Your task to perform on an android device: delete browsing data in the chrome app Image 0: 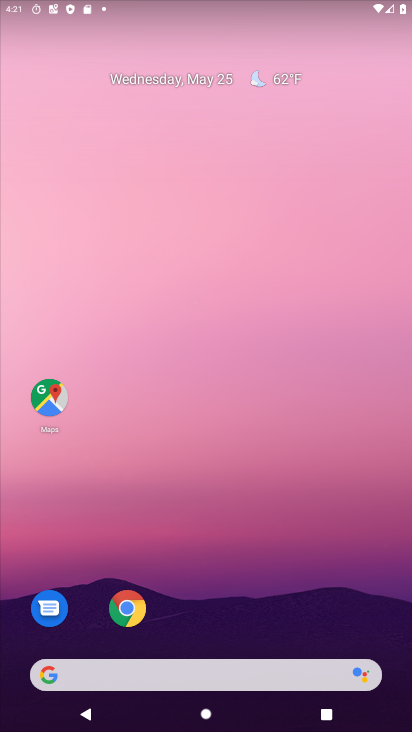
Step 0: click (128, 609)
Your task to perform on an android device: delete browsing data in the chrome app Image 1: 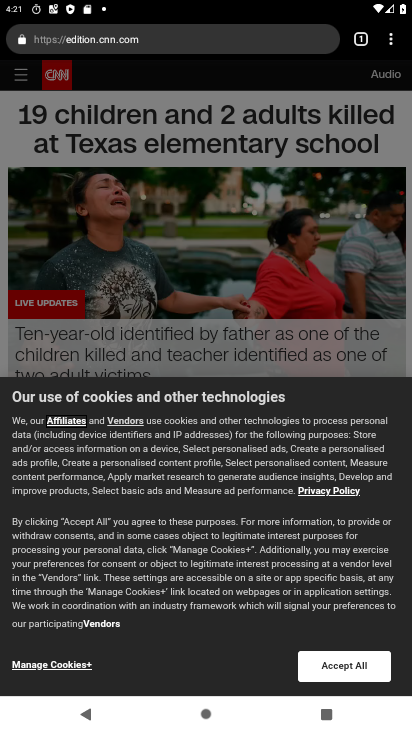
Step 1: click (391, 42)
Your task to perform on an android device: delete browsing data in the chrome app Image 2: 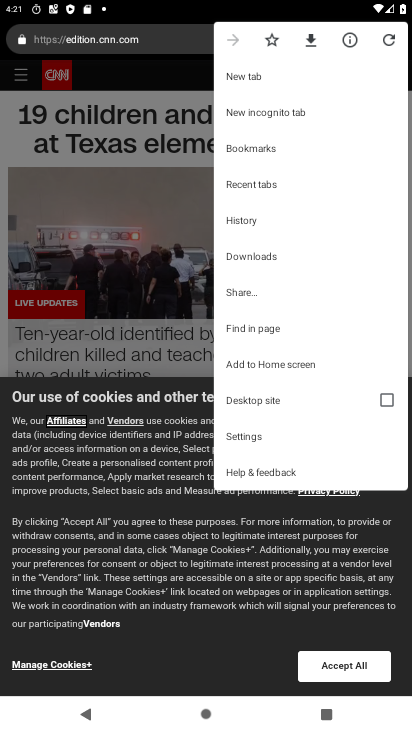
Step 2: click (246, 434)
Your task to perform on an android device: delete browsing data in the chrome app Image 3: 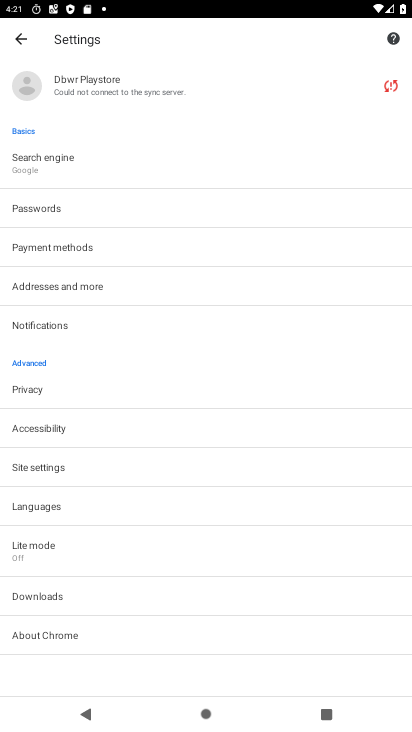
Step 3: click (35, 391)
Your task to perform on an android device: delete browsing data in the chrome app Image 4: 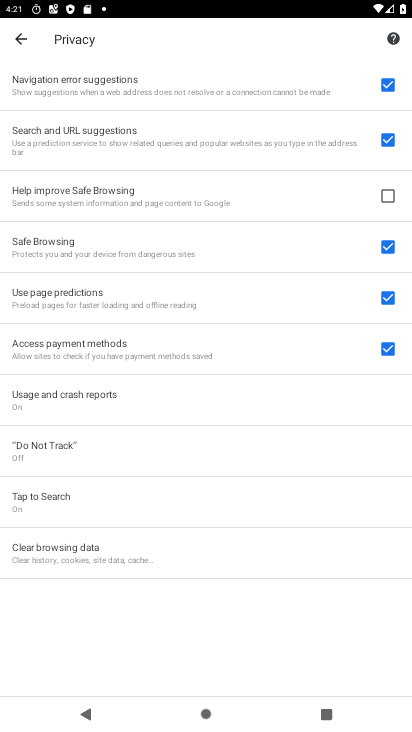
Step 4: click (81, 559)
Your task to perform on an android device: delete browsing data in the chrome app Image 5: 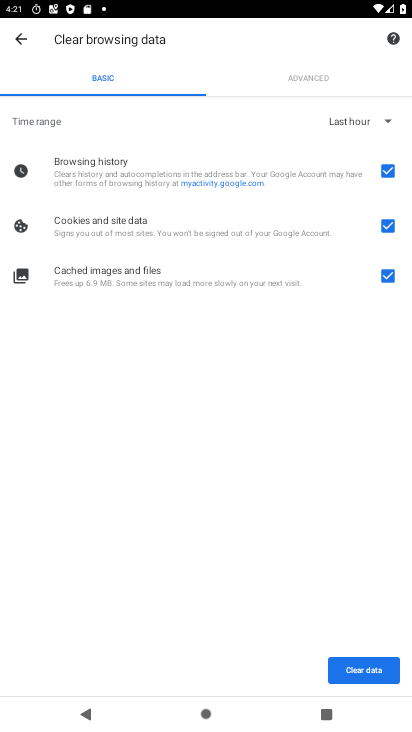
Step 5: click (367, 673)
Your task to perform on an android device: delete browsing data in the chrome app Image 6: 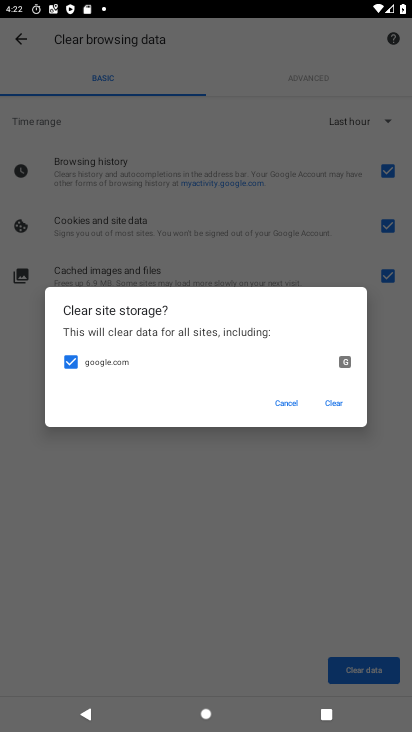
Step 6: click (332, 404)
Your task to perform on an android device: delete browsing data in the chrome app Image 7: 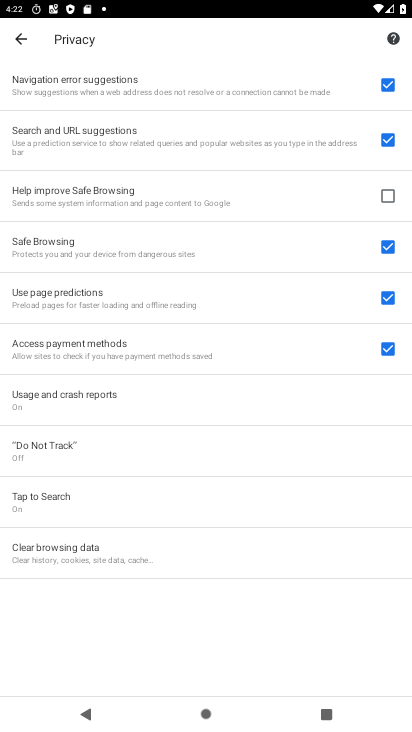
Step 7: task complete